Your task to perform on an android device: Open calendar and show me the fourth week of next month Image 0: 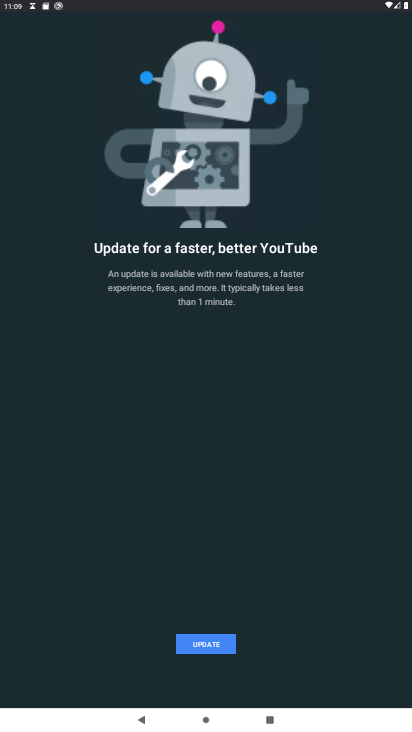
Step 0: press home button
Your task to perform on an android device: Open calendar and show me the fourth week of next month Image 1: 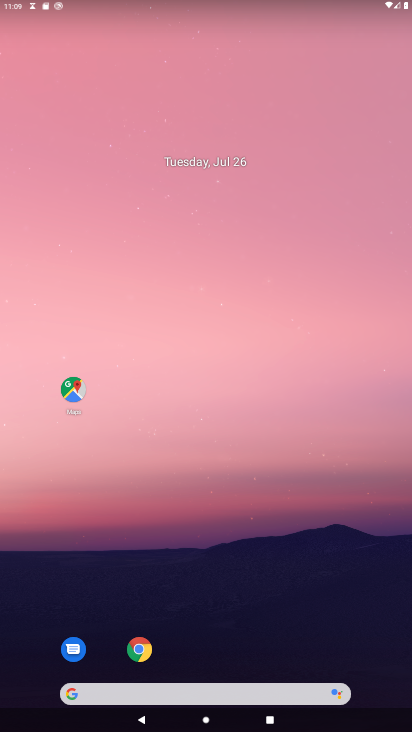
Step 1: drag from (215, 642) to (249, 235)
Your task to perform on an android device: Open calendar and show me the fourth week of next month Image 2: 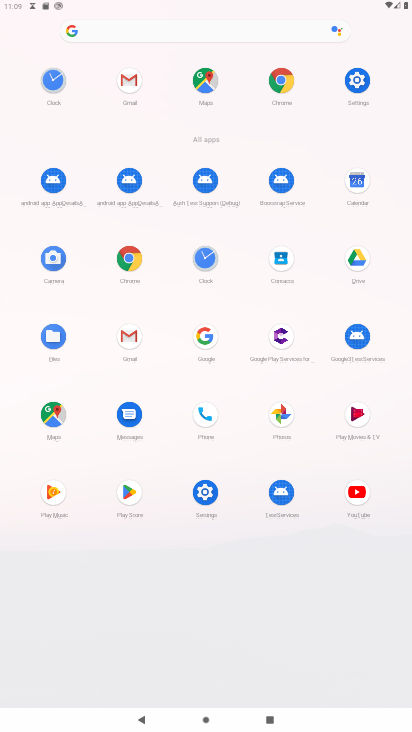
Step 2: click (360, 188)
Your task to perform on an android device: Open calendar and show me the fourth week of next month Image 3: 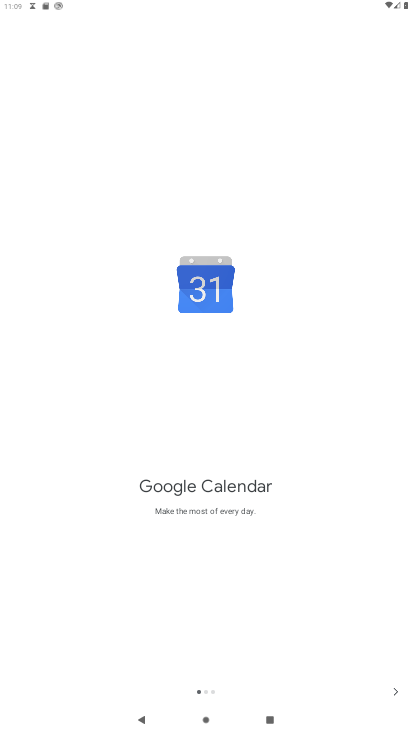
Step 3: click (393, 703)
Your task to perform on an android device: Open calendar and show me the fourth week of next month Image 4: 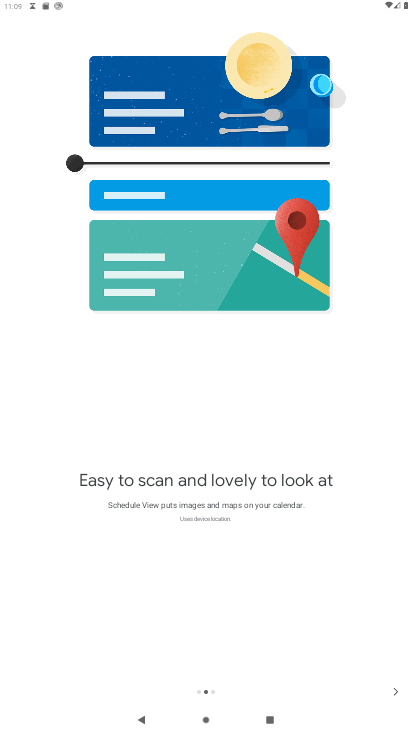
Step 4: click (390, 692)
Your task to perform on an android device: Open calendar and show me the fourth week of next month Image 5: 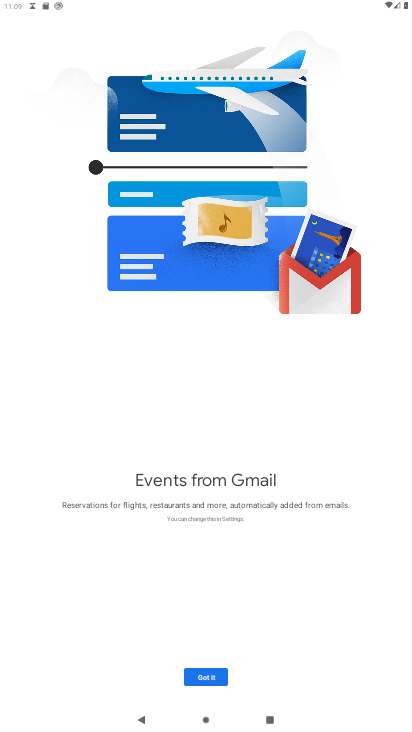
Step 5: click (204, 678)
Your task to perform on an android device: Open calendar and show me the fourth week of next month Image 6: 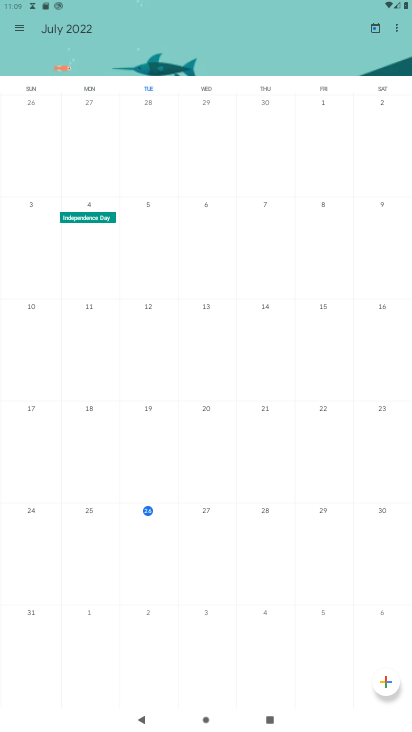
Step 6: click (17, 17)
Your task to perform on an android device: Open calendar and show me the fourth week of next month Image 7: 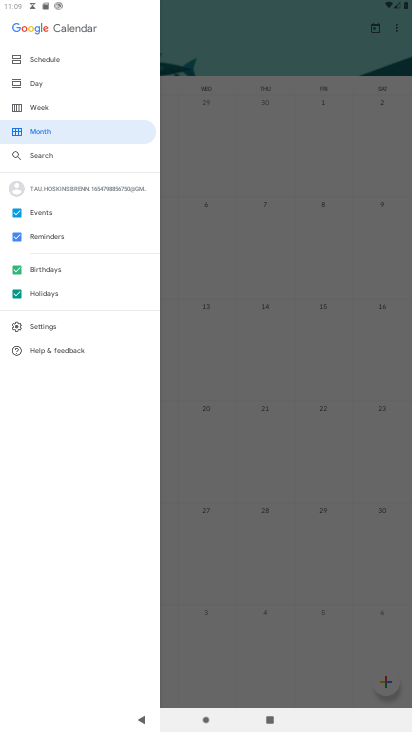
Step 7: click (45, 106)
Your task to perform on an android device: Open calendar and show me the fourth week of next month Image 8: 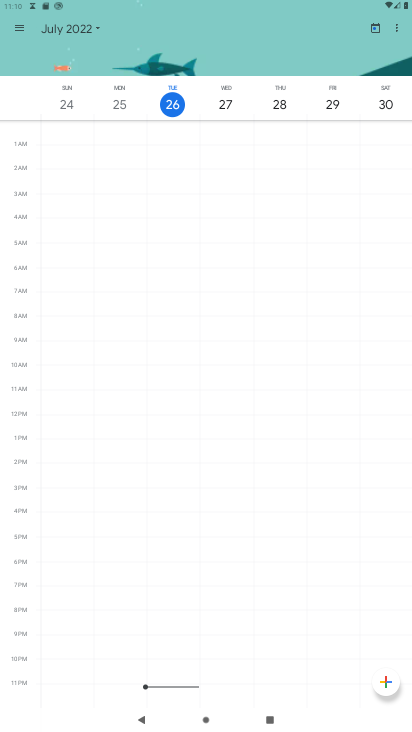
Step 8: task complete